Your task to perform on an android device: Do I have any events tomorrow? Image 0: 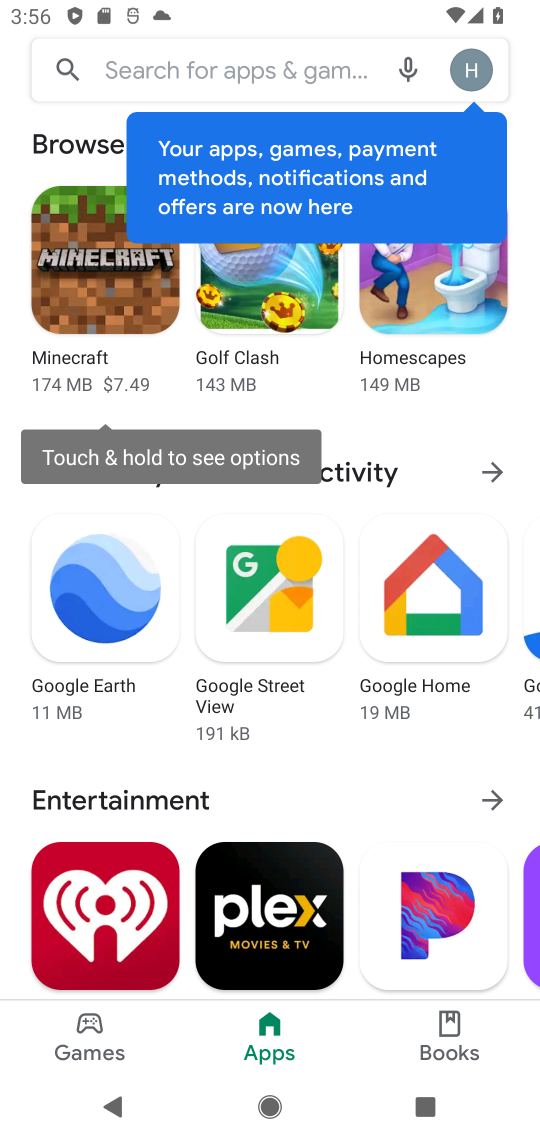
Step 0: press home button
Your task to perform on an android device: Do I have any events tomorrow? Image 1: 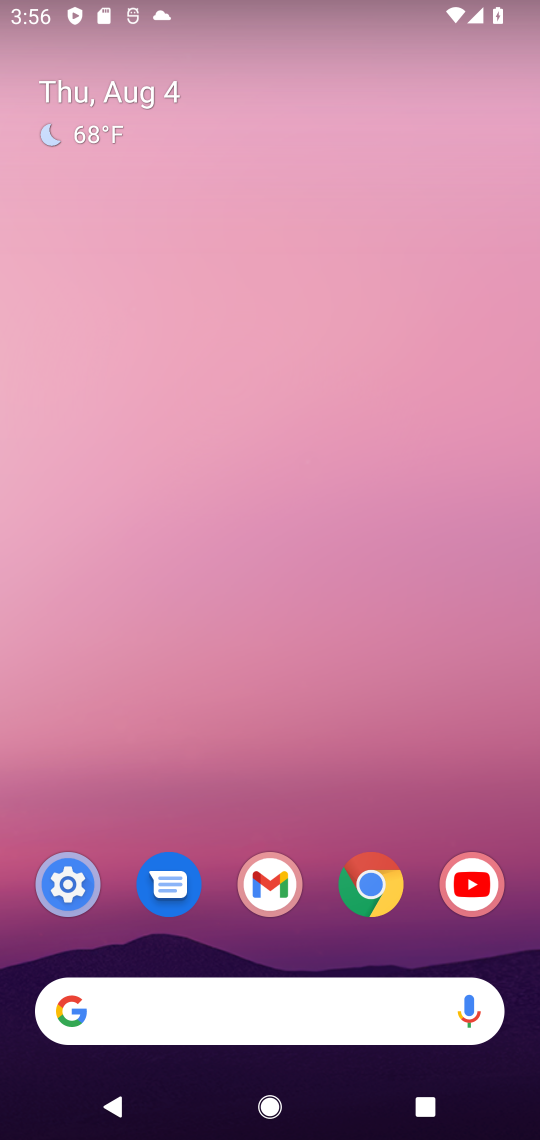
Step 1: drag from (221, 894) to (255, 566)
Your task to perform on an android device: Do I have any events tomorrow? Image 2: 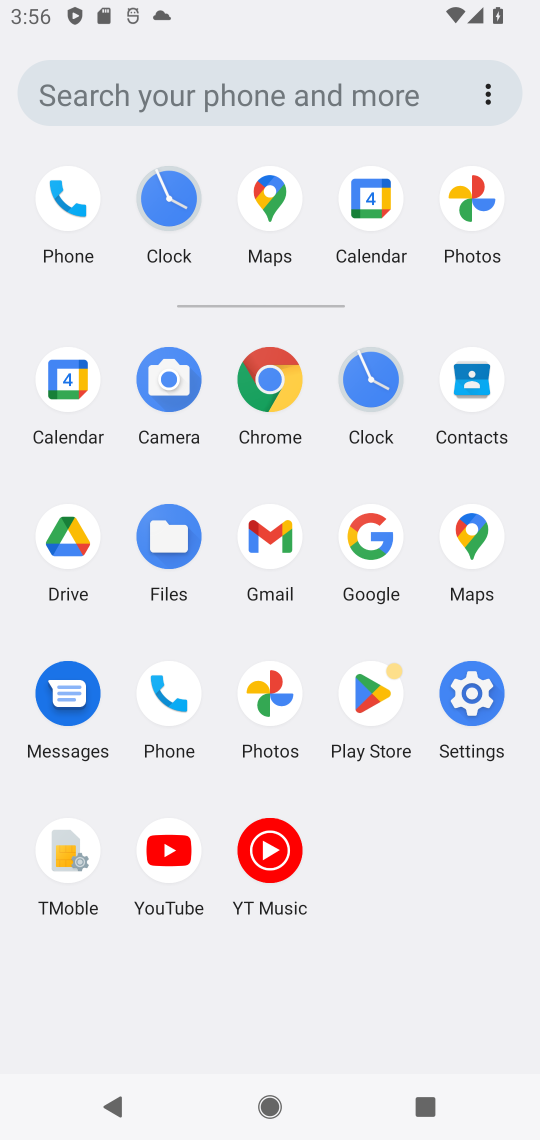
Step 2: click (53, 371)
Your task to perform on an android device: Do I have any events tomorrow? Image 3: 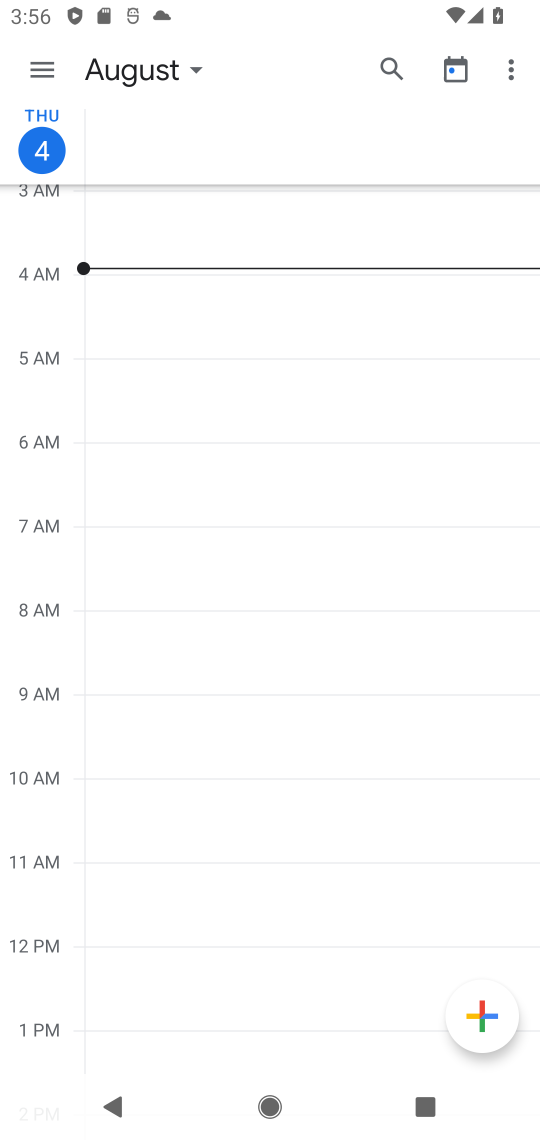
Step 3: click (52, 56)
Your task to perform on an android device: Do I have any events tomorrow? Image 4: 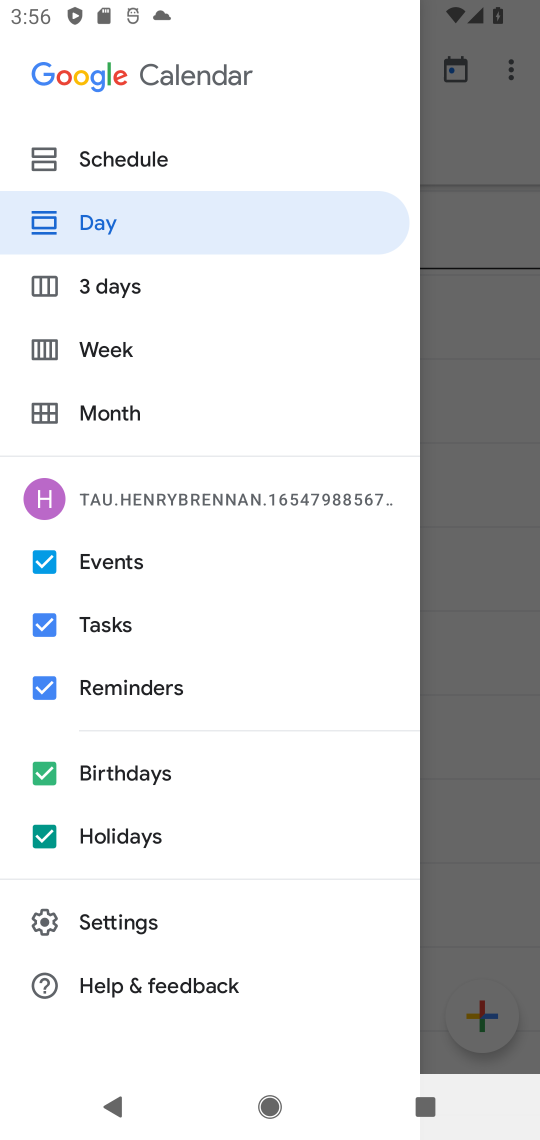
Step 4: click (122, 396)
Your task to perform on an android device: Do I have any events tomorrow? Image 5: 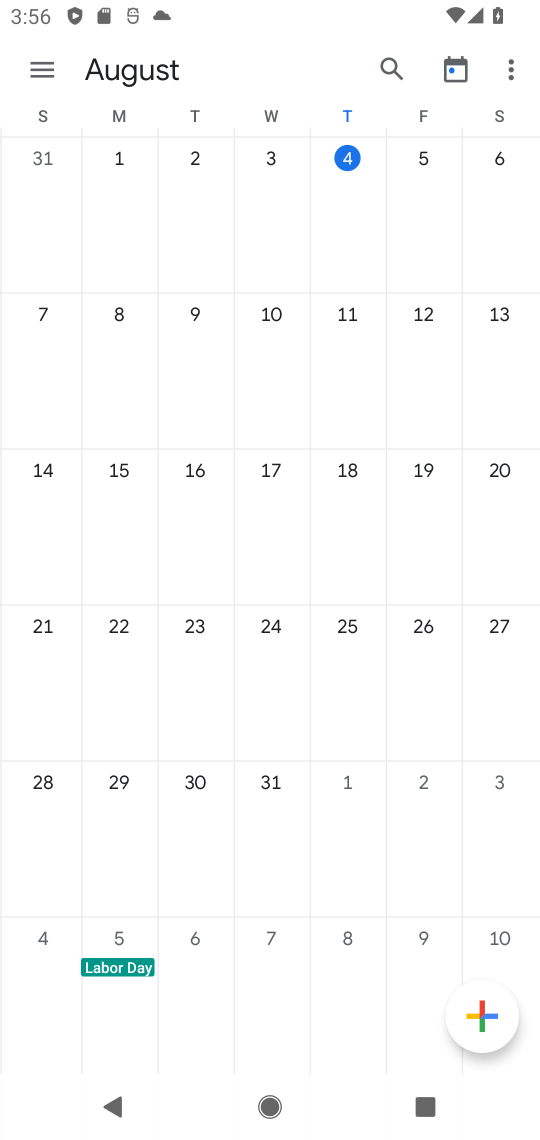
Step 5: click (416, 203)
Your task to perform on an android device: Do I have any events tomorrow? Image 6: 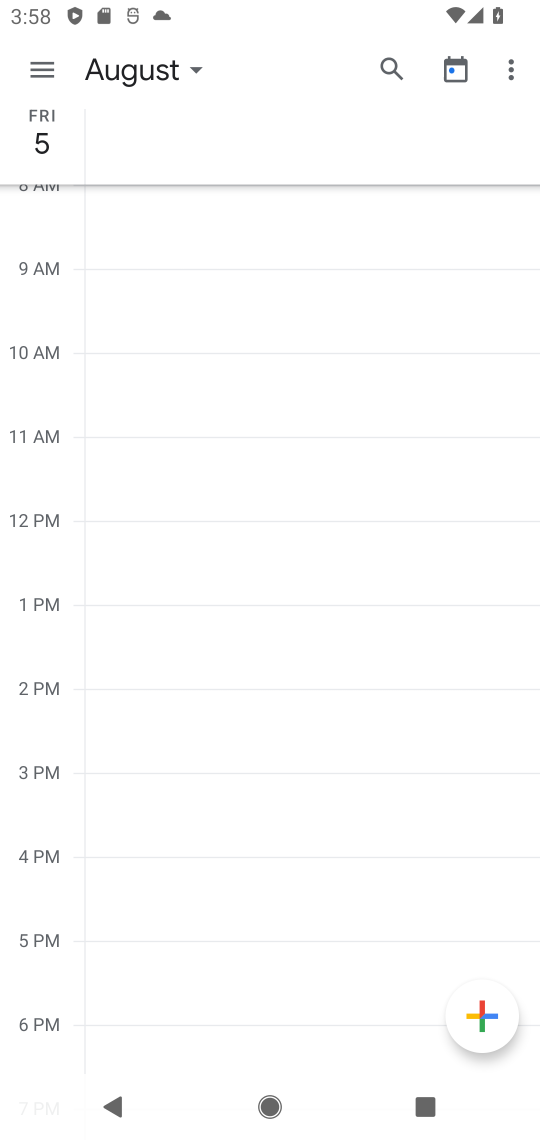
Step 6: task complete